Your task to perform on an android device: Open Chrome and go to the settings page Image 0: 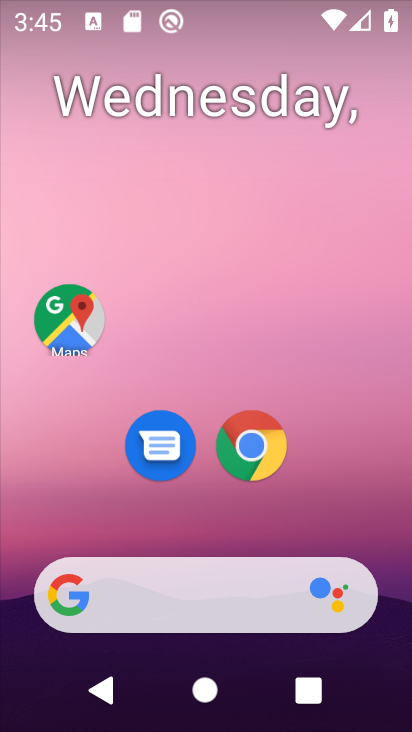
Step 0: click (250, 435)
Your task to perform on an android device: Open Chrome and go to the settings page Image 1: 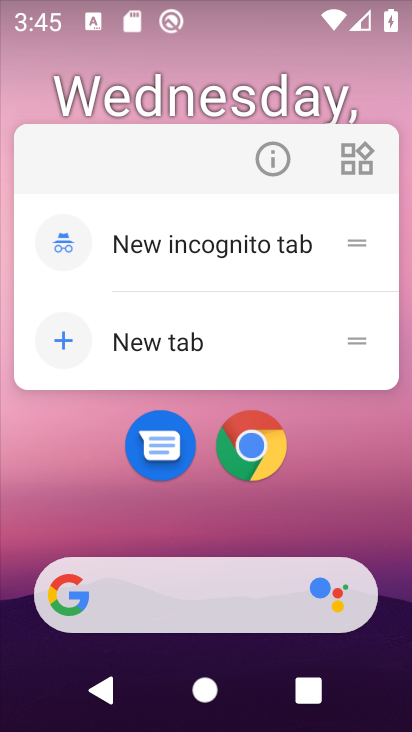
Step 1: click (250, 435)
Your task to perform on an android device: Open Chrome and go to the settings page Image 2: 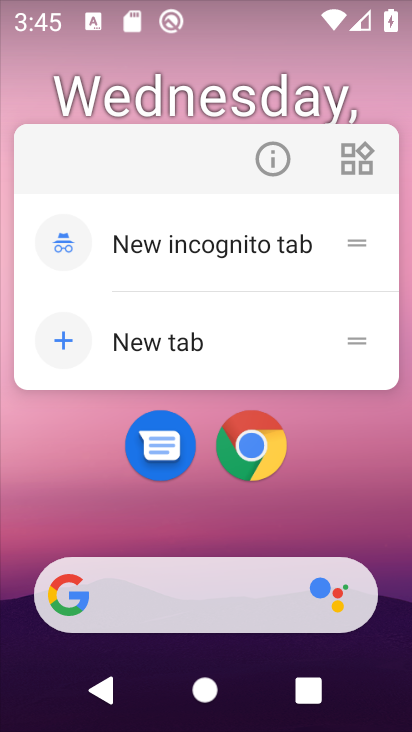
Step 2: click (247, 452)
Your task to perform on an android device: Open Chrome and go to the settings page Image 3: 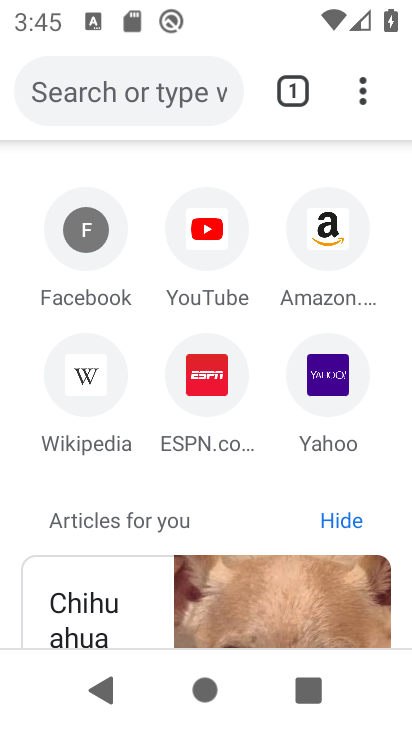
Step 3: click (365, 91)
Your task to perform on an android device: Open Chrome and go to the settings page Image 4: 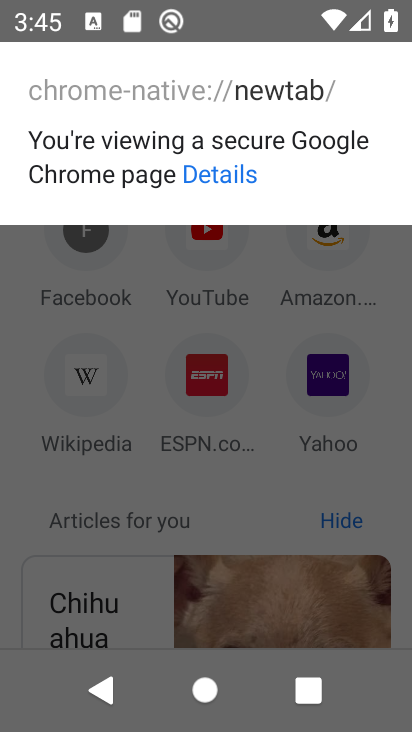
Step 4: click (397, 262)
Your task to perform on an android device: Open Chrome and go to the settings page Image 5: 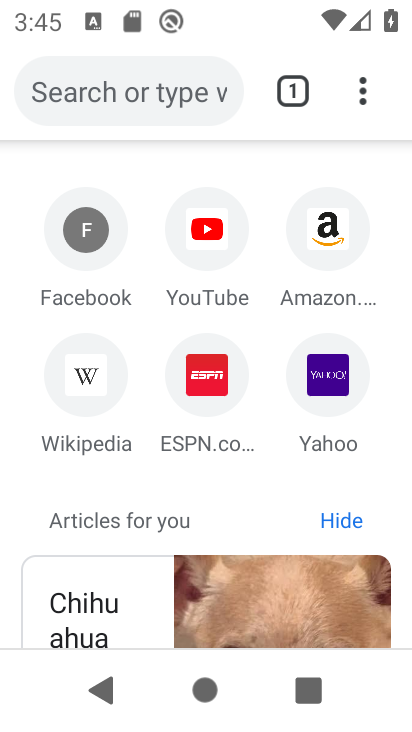
Step 5: click (364, 98)
Your task to perform on an android device: Open Chrome and go to the settings page Image 6: 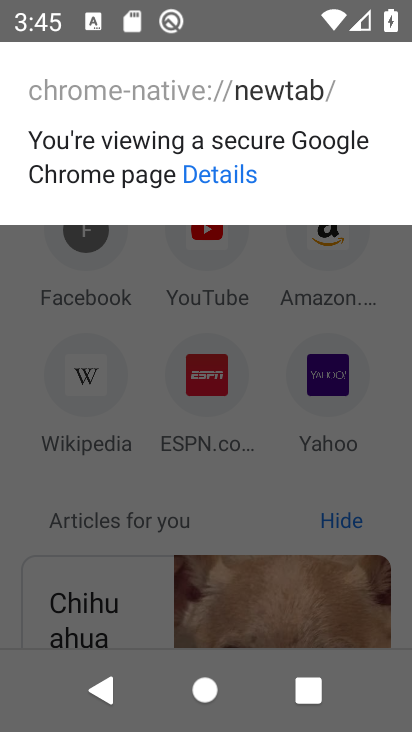
Step 6: click (384, 253)
Your task to perform on an android device: Open Chrome and go to the settings page Image 7: 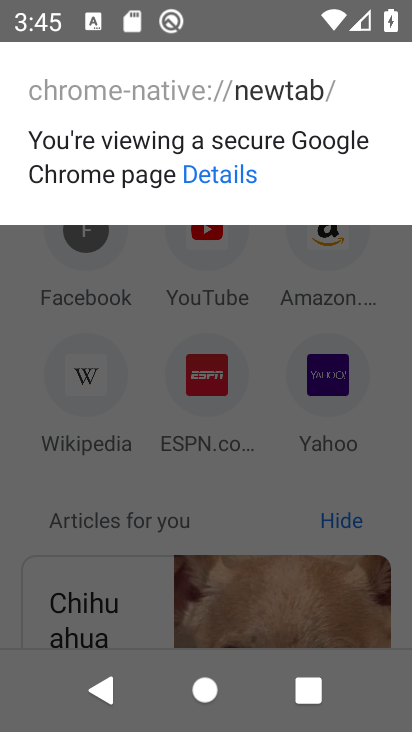
Step 7: click (399, 273)
Your task to perform on an android device: Open Chrome and go to the settings page Image 8: 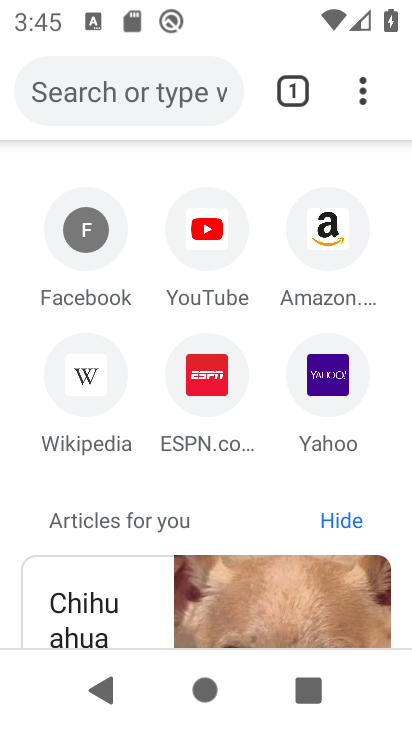
Step 8: click (363, 93)
Your task to perform on an android device: Open Chrome and go to the settings page Image 9: 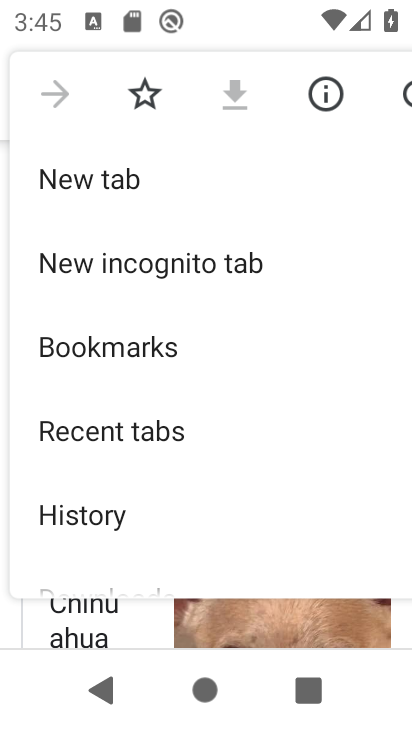
Step 9: drag from (261, 176) to (259, 104)
Your task to perform on an android device: Open Chrome and go to the settings page Image 10: 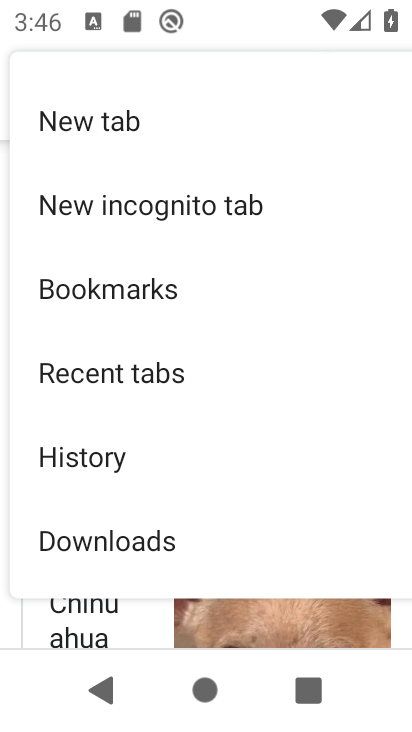
Step 10: drag from (259, 425) to (271, 115)
Your task to perform on an android device: Open Chrome and go to the settings page Image 11: 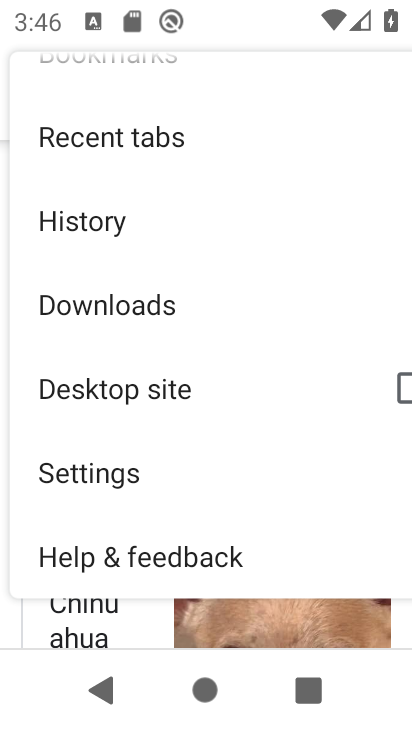
Step 11: click (79, 474)
Your task to perform on an android device: Open Chrome and go to the settings page Image 12: 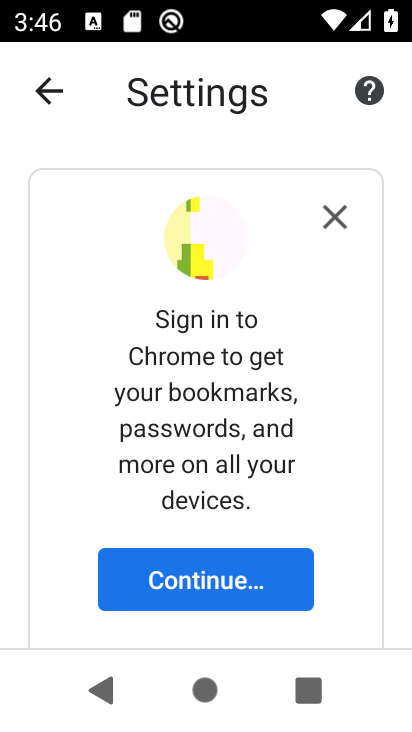
Step 12: task complete